Your task to perform on an android device: turn off improve location accuracy Image 0: 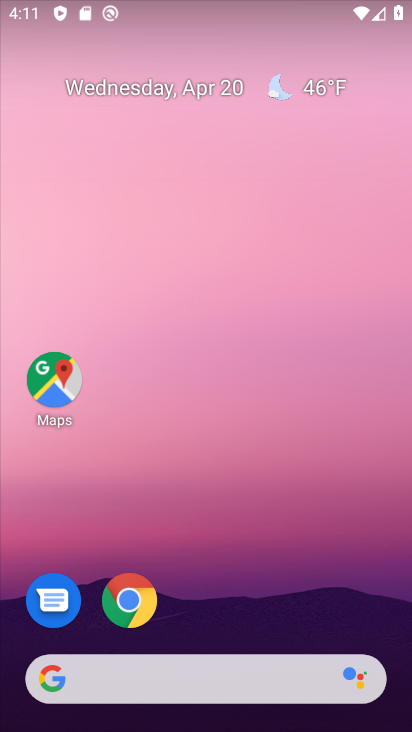
Step 0: drag from (243, 466) to (209, 52)
Your task to perform on an android device: turn off improve location accuracy Image 1: 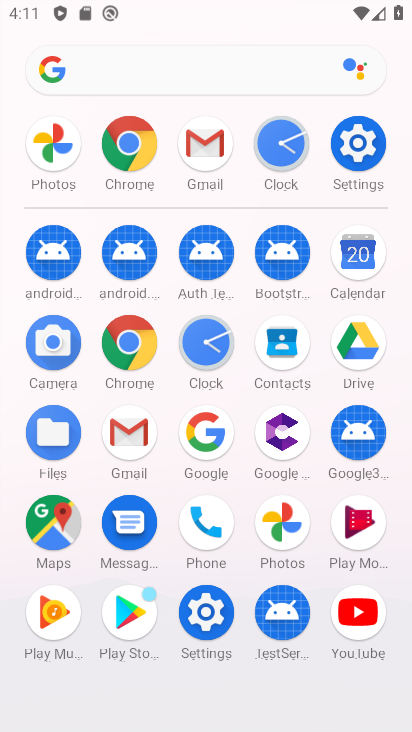
Step 1: click (367, 154)
Your task to perform on an android device: turn off improve location accuracy Image 2: 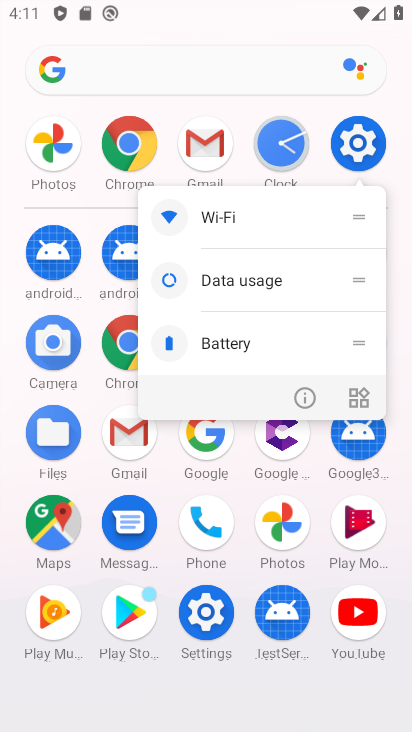
Step 2: click (357, 163)
Your task to perform on an android device: turn off improve location accuracy Image 3: 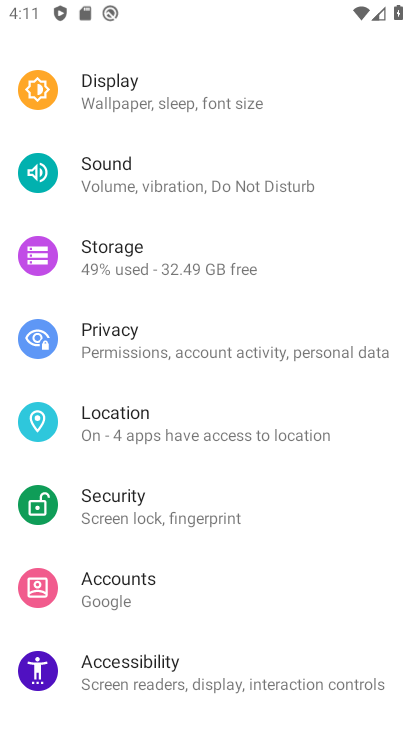
Step 3: click (155, 422)
Your task to perform on an android device: turn off improve location accuracy Image 4: 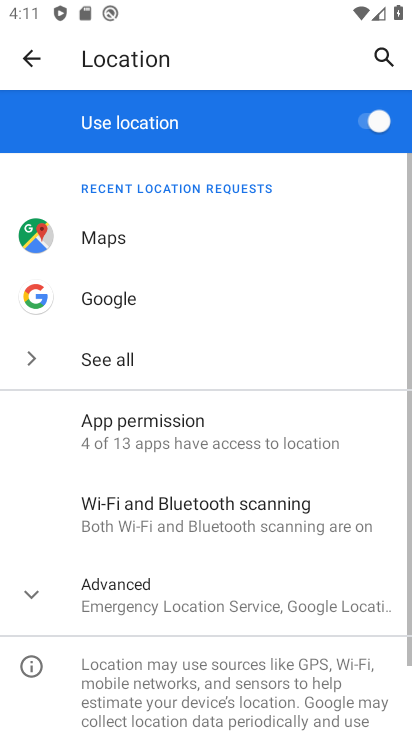
Step 4: click (212, 591)
Your task to perform on an android device: turn off improve location accuracy Image 5: 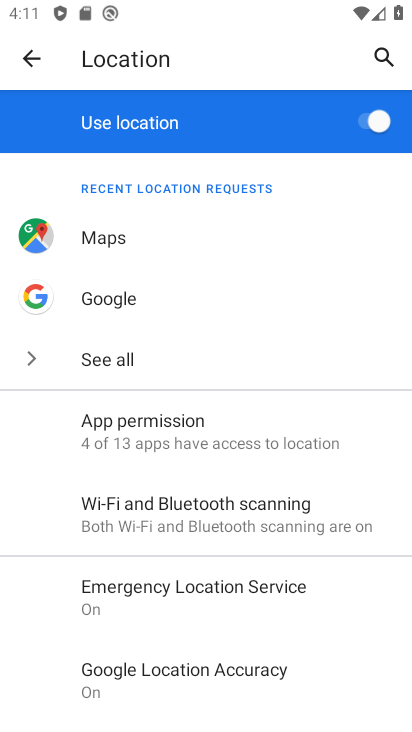
Step 5: drag from (247, 649) to (242, 458)
Your task to perform on an android device: turn off improve location accuracy Image 6: 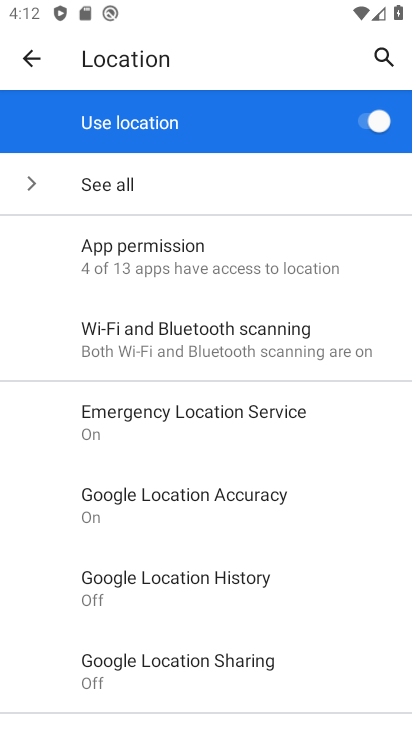
Step 6: click (236, 500)
Your task to perform on an android device: turn off improve location accuracy Image 7: 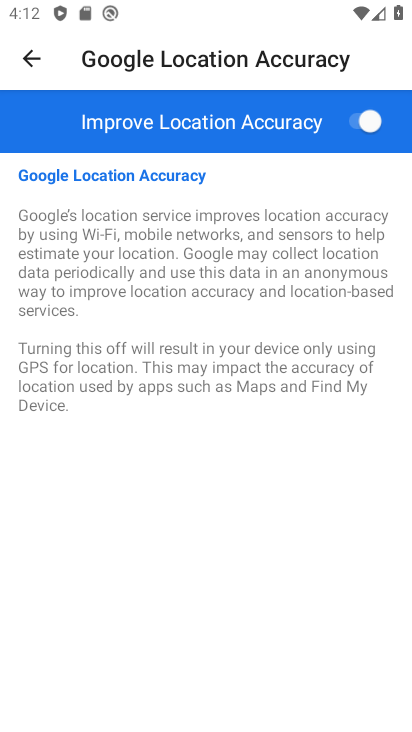
Step 7: click (370, 118)
Your task to perform on an android device: turn off improve location accuracy Image 8: 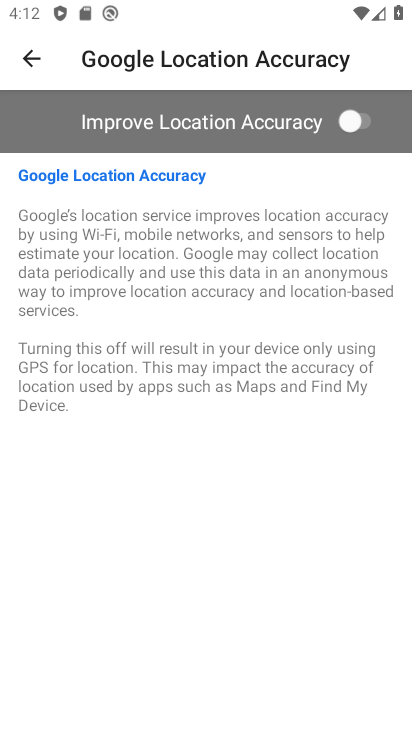
Step 8: task complete